Your task to perform on an android device: Search for Mexican restaurants on Maps Image 0: 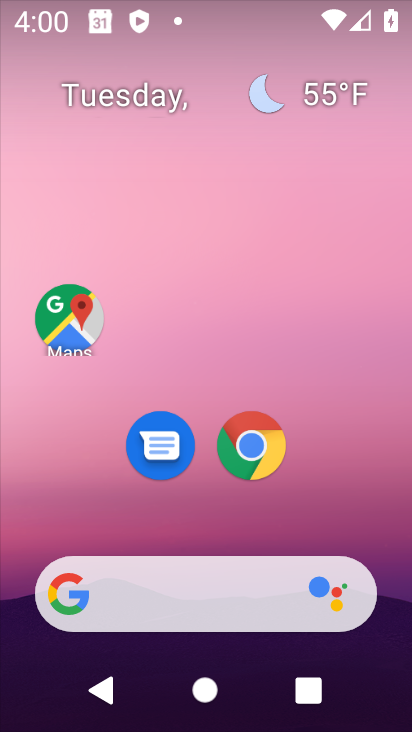
Step 0: click (60, 331)
Your task to perform on an android device: Search for Mexican restaurants on Maps Image 1: 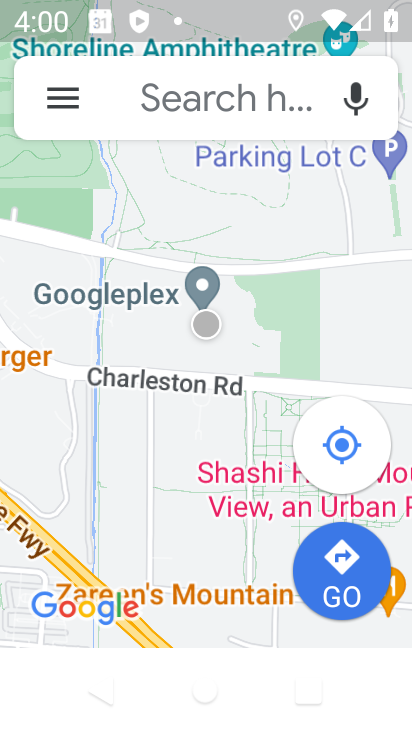
Step 1: click (162, 96)
Your task to perform on an android device: Search for Mexican restaurants on Maps Image 2: 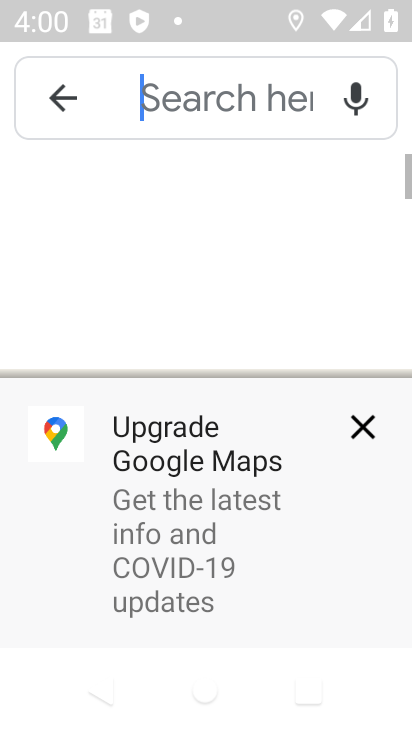
Step 2: click (360, 418)
Your task to perform on an android device: Search for Mexican restaurants on Maps Image 3: 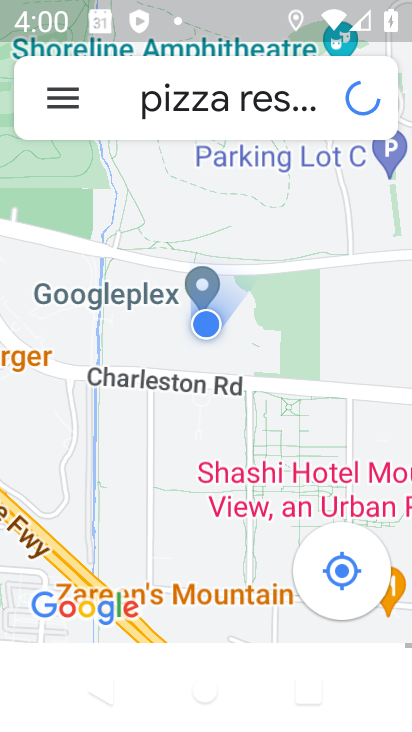
Step 3: drag from (269, 589) to (247, 234)
Your task to perform on an android device: Search for Mexican restaurants on Maps Image 4: 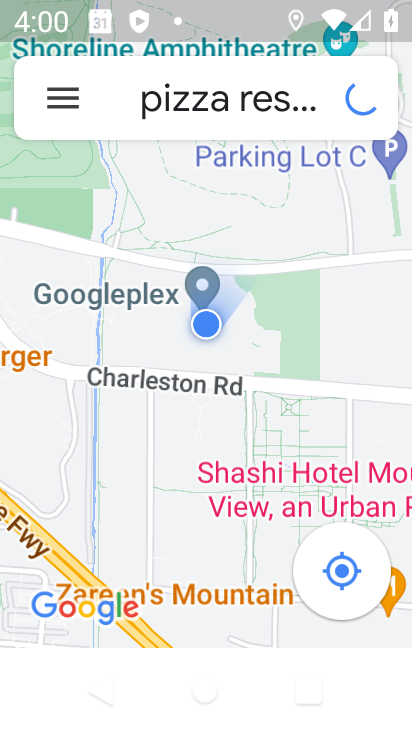
Step 4: click (232, 84)
Your task to perform on an android device: Search for Mexican restaurants on Maps Image 5: 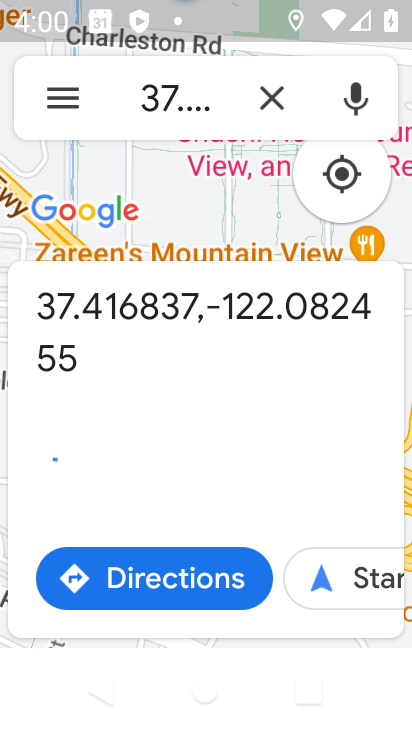
Step 5: click (272, 108)
Your task to perform on an android device: Search for Mexican restaurants on Maps Image 6: 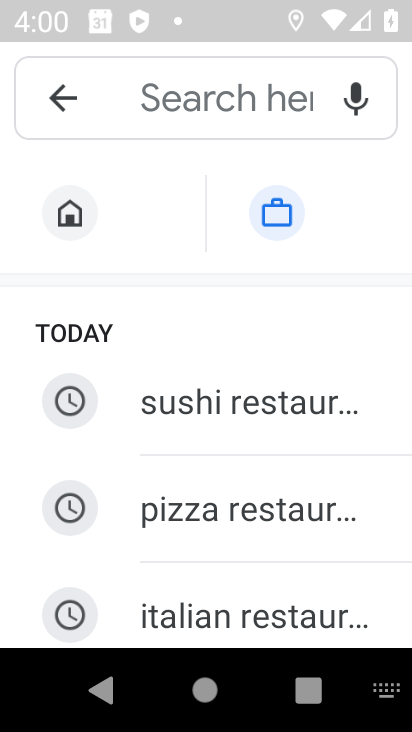
Step 6: type "mexican"
Your task to perform on an android device: Search for Mexican restaurants on Maps Image 7: 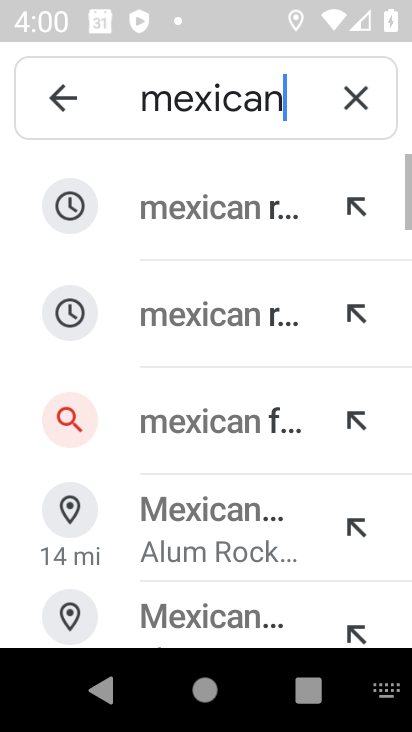
Step 7: click (222, 200)
Your task to perform on an android device: Search for Mexican restaurants on Maps Image 8: 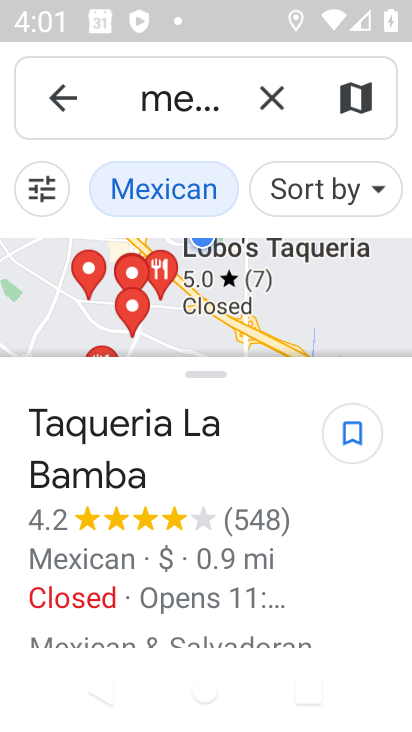
Step 8: task complete